Your task to perform on an android device: turn notification dots off Image 0: 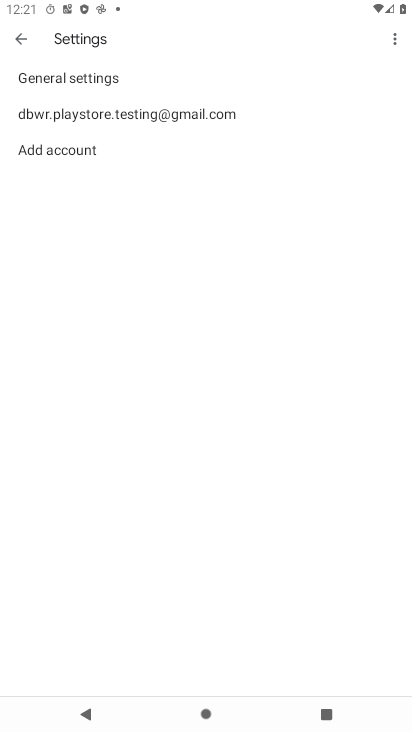
Step 0: press home button
Your task to perform on an android device: turn notification dots off Image 1: 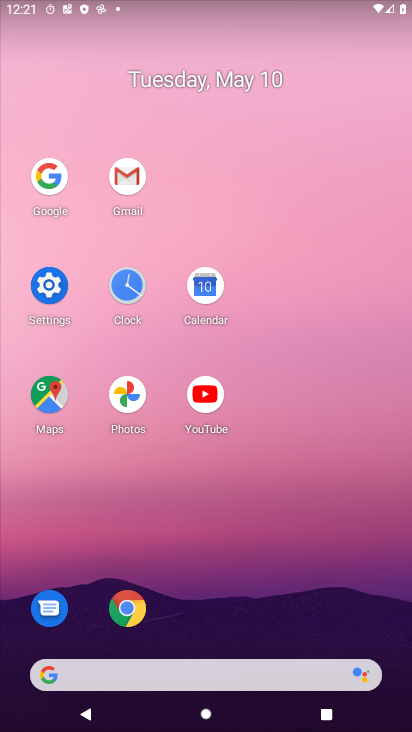
Step 1: click (47, 291)
Your task to perform on an android device: turn notification dots off Image 2: 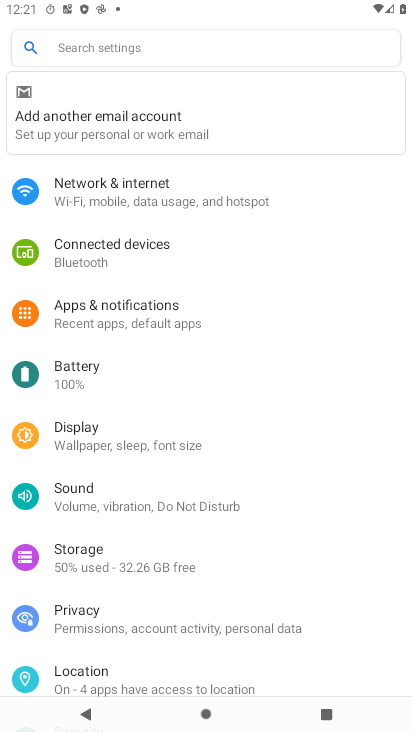
Step 2: click (206, 301)
Your task to perform on an android device: turn notification dots off Image 3: 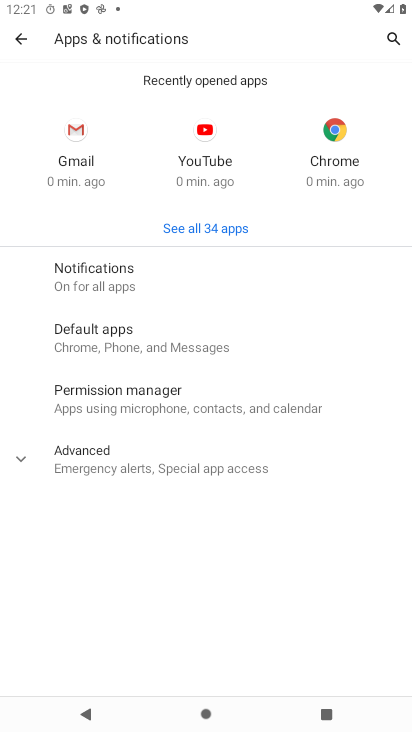
Step 3: click (183, 279)
Your task to perform on an android device: turn notification dots off Image 4: 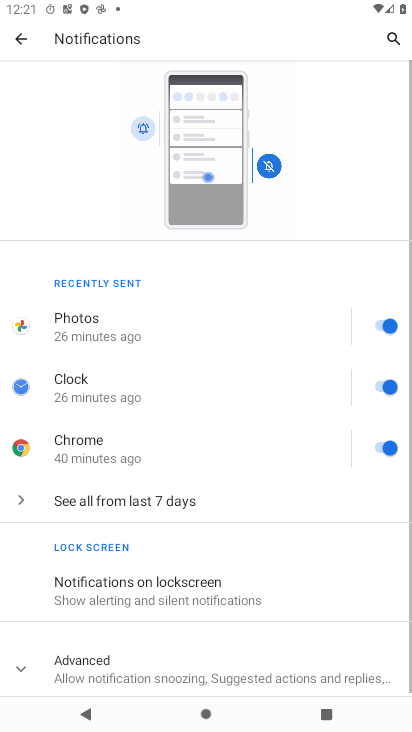
Step 4: drag from (203, 432) to (178, 335)
Your task to perform on an android device: turn notification dots off Image 5: 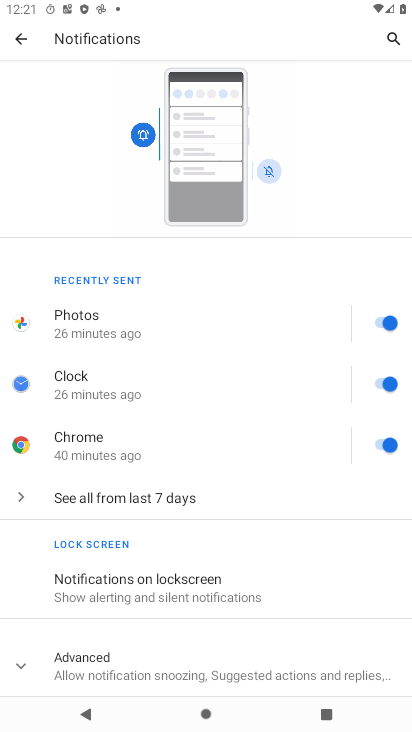
Step 5: click (175, 631)
Your task to perform on an android device: turn notification dots off Image 6: 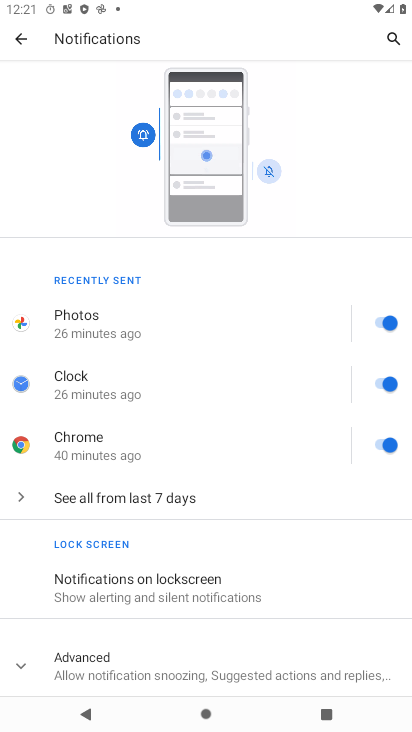
Step 6: click (108, 644)
Your task to perform on an android device: turn notification dots off Image 7: 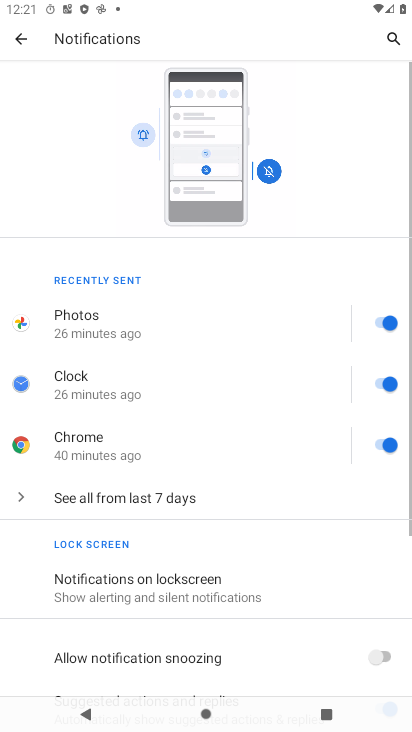
Step 7: task complete